Your task to perform on an android device: turn off priority inbox in the gmail app Image 0: 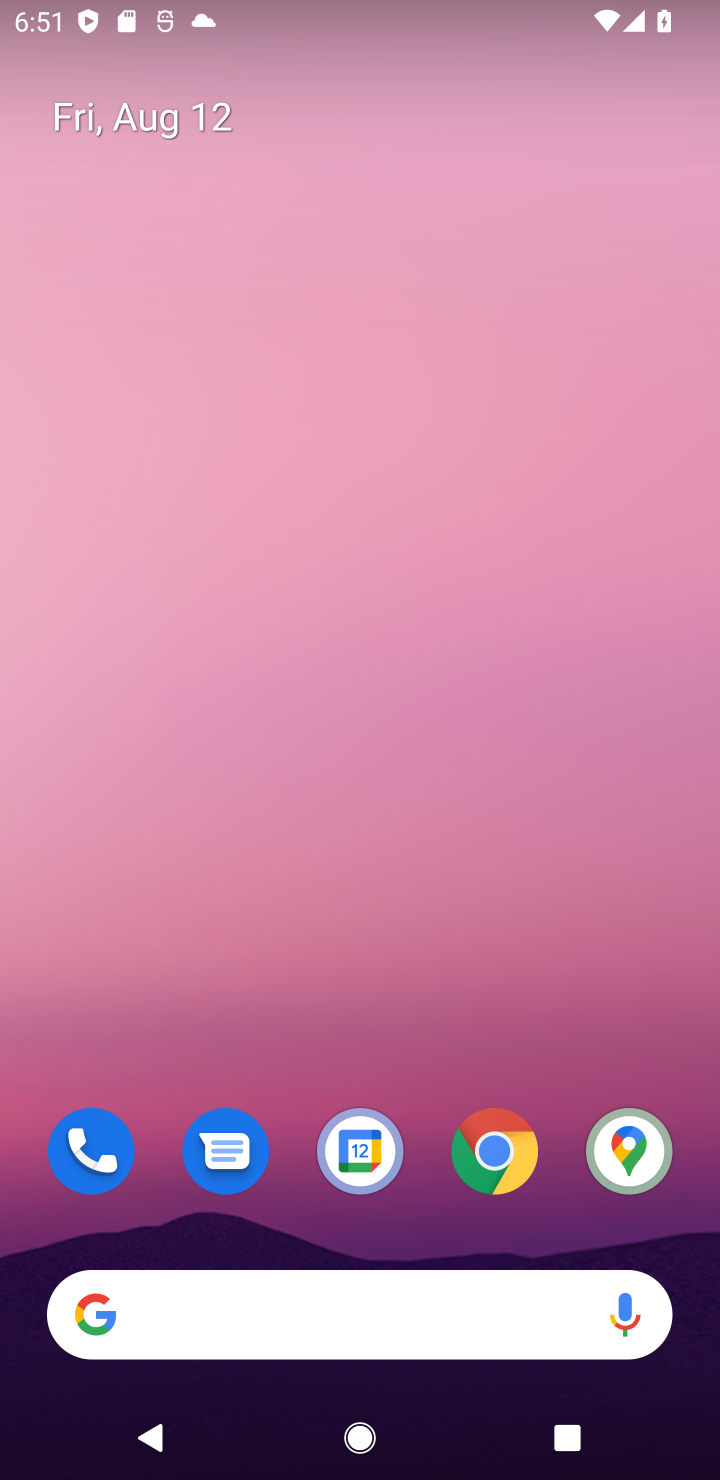
Step 0: drag from (436, 1228) to (372, 365)
Your task to perform on an android device: turn off priority inbox in the gmail app Image 1: 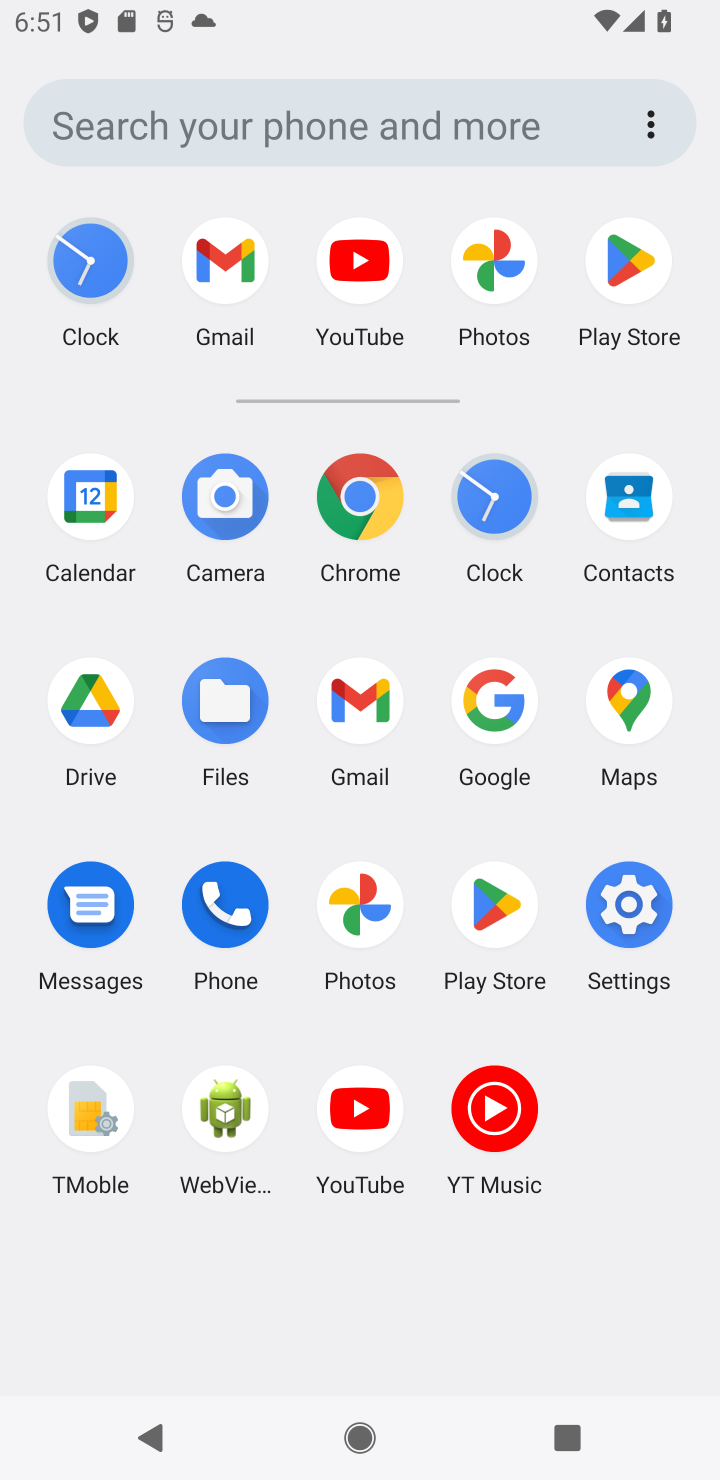
Step 1: click (350, 699)
Your task to perform on an android device: turn off priority inbox in the gmail app Image 2: 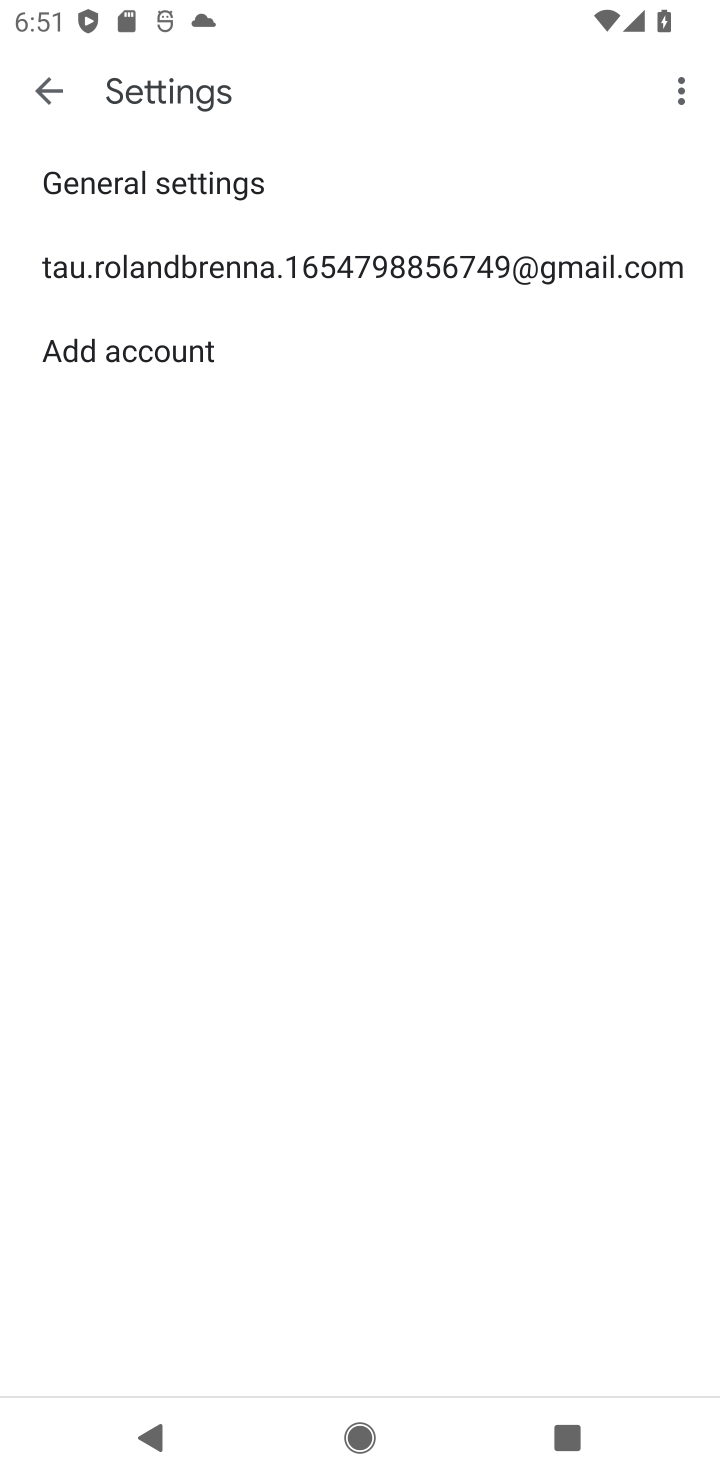
Step 2: press home button
Your task to perform on an android device: turn off priority inbox in the gmail app Image 3: 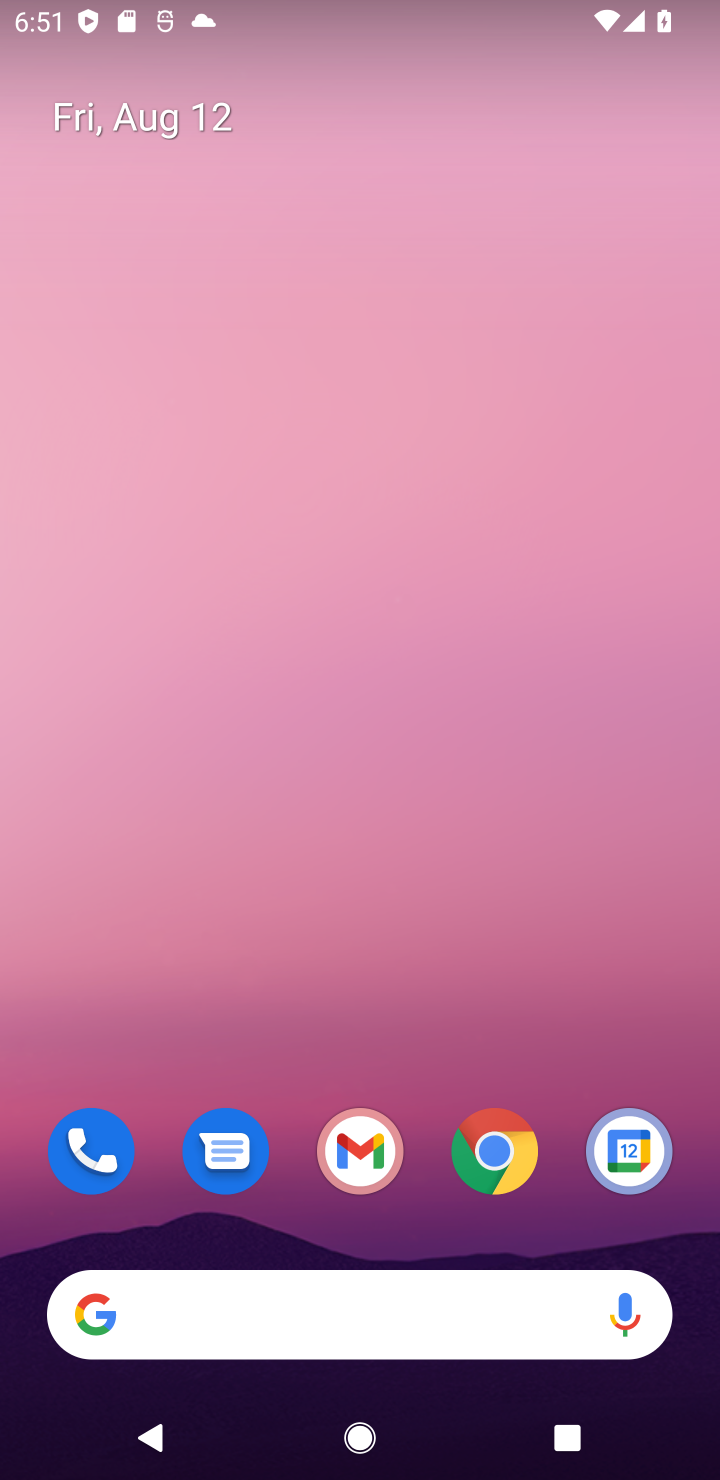
Step 3: drag from (336, 934) to (379, 71)
Your task to perform on an android device: turn off priority inbox in the gmail app Image 4: 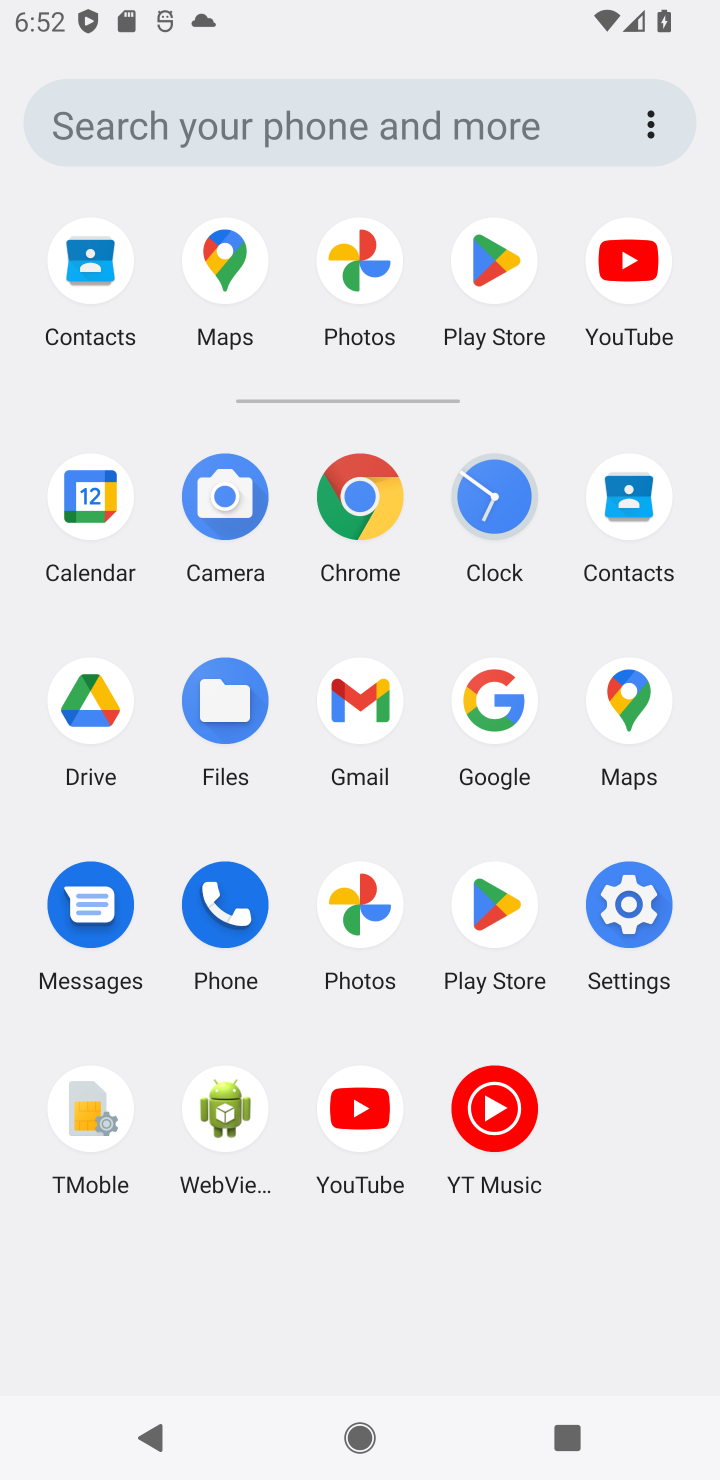
Step 4: click (373, 725)
Your task to perform on an android device: turn off priority inbox in the gmail app Image 5: 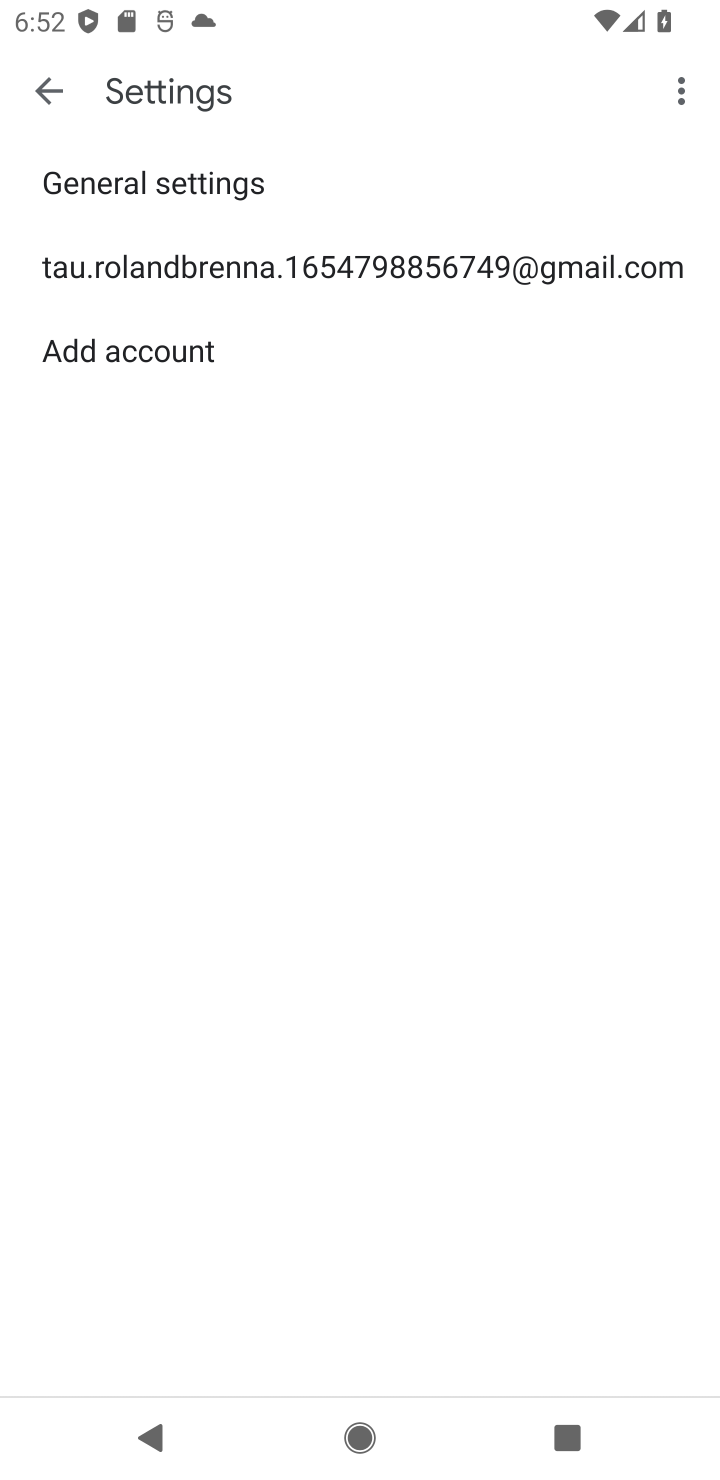
Step 5: click (184, 277)
Your task to perform on an android device: turn off priority inbox in the gmail app Image 6: 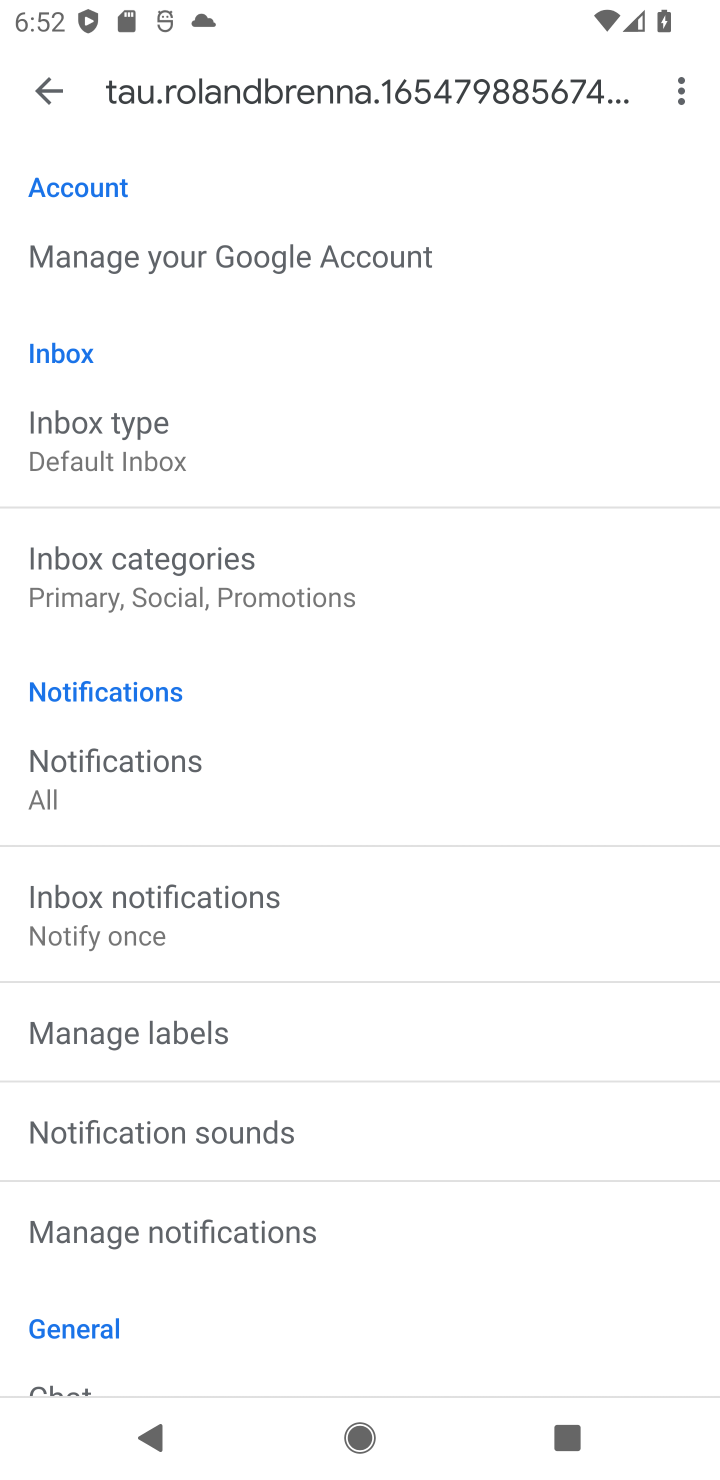
Step 6: click (157, 442)
Your task to perform on an android device: turn off priority inbox in the gmail app Image 7: 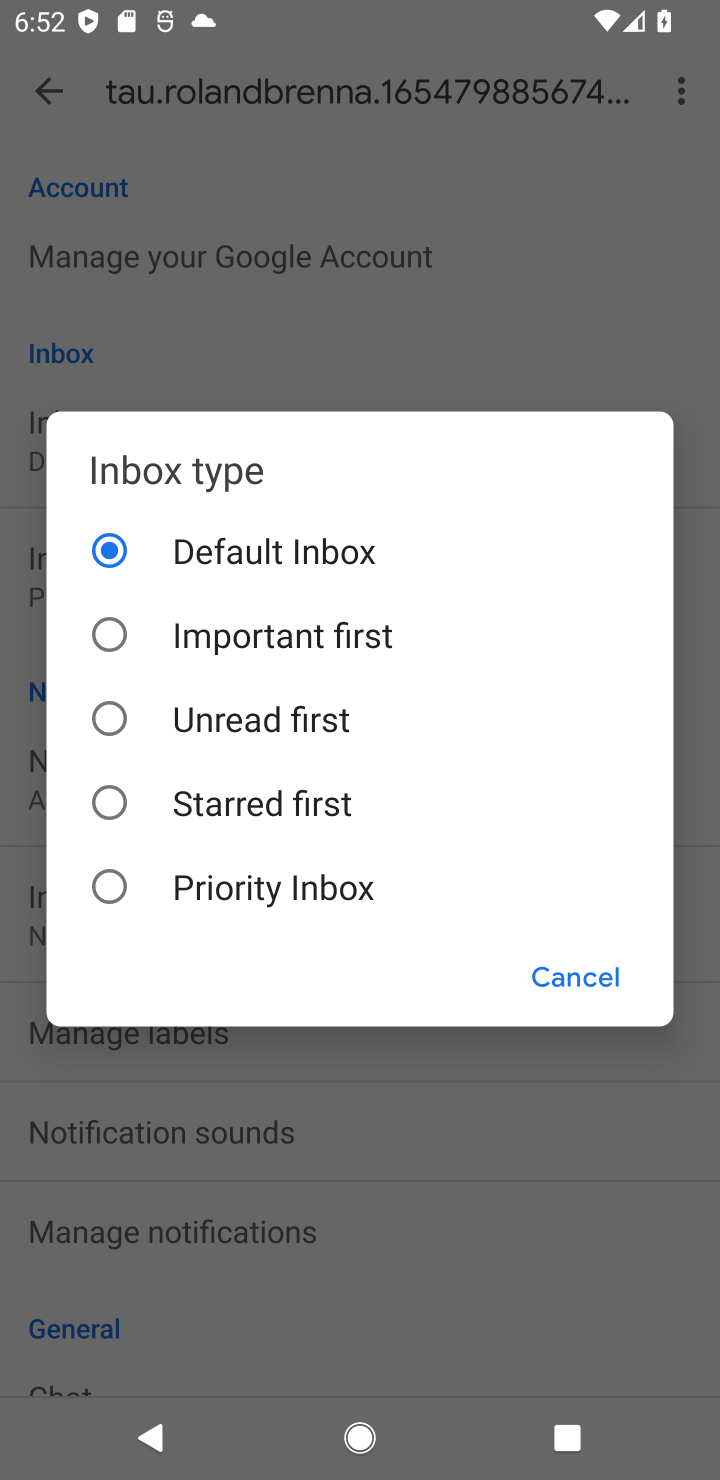
Step 7: task complete